Your task to perform on an android device: refresh tabs in the chrome app Image 0: 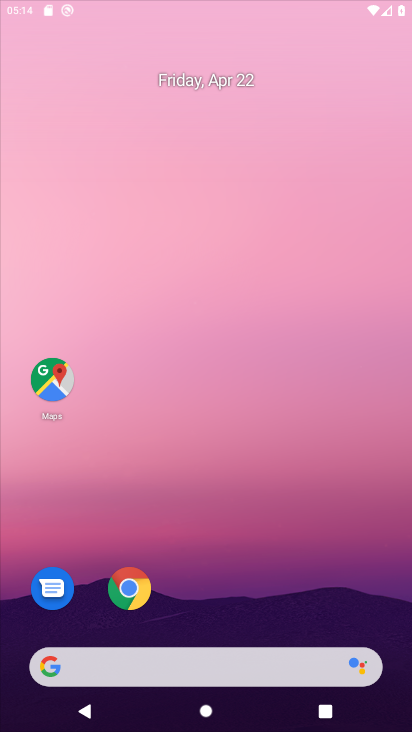
Step 0: drag from (261, 598) to (280, 65)
Your task to perform on an android device: refresh tabs in the chrome app Image 1: 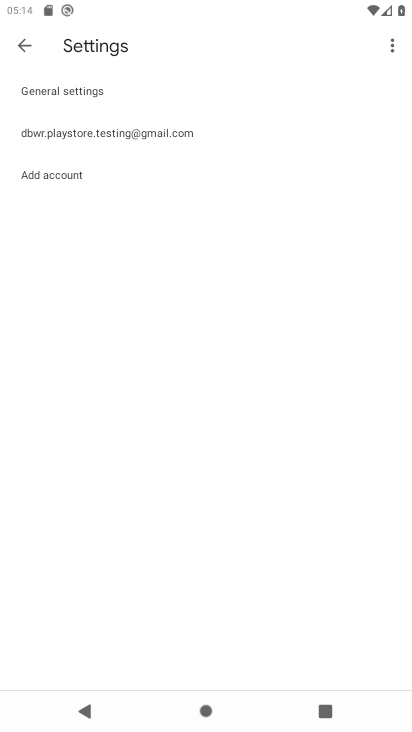
Step 1: press home button
Your task to perform on an android device: refresh tabs in the chrome app Image 2: 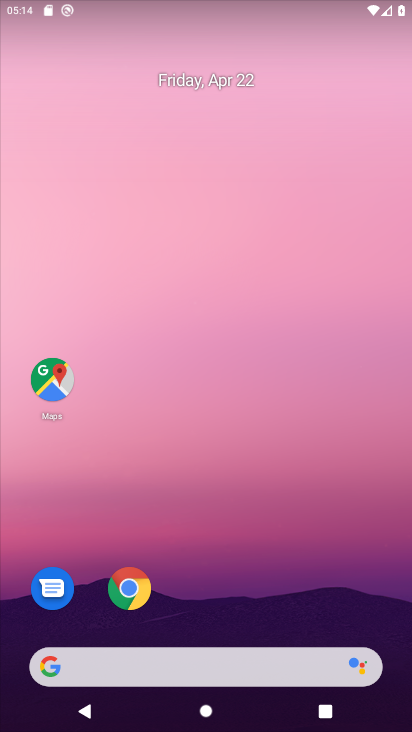
Step 2: click (132, 586)
Your task to perform on an android device: refresh tabs in the chrome app Image 3: 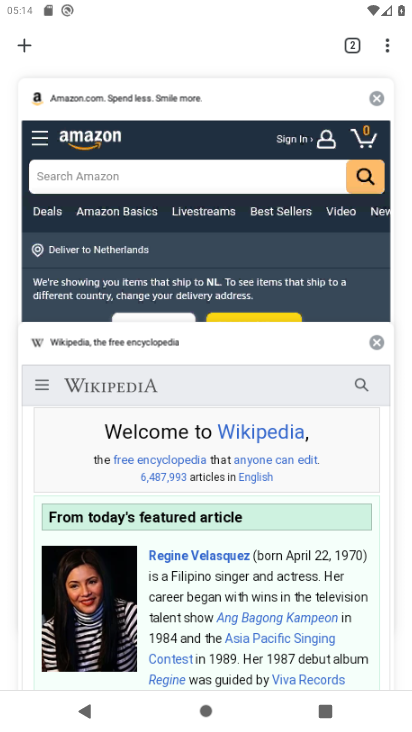
Step 3: click (389, 45)
Your task to perform on an android device: refresh tabs in the chrome app Image 4: 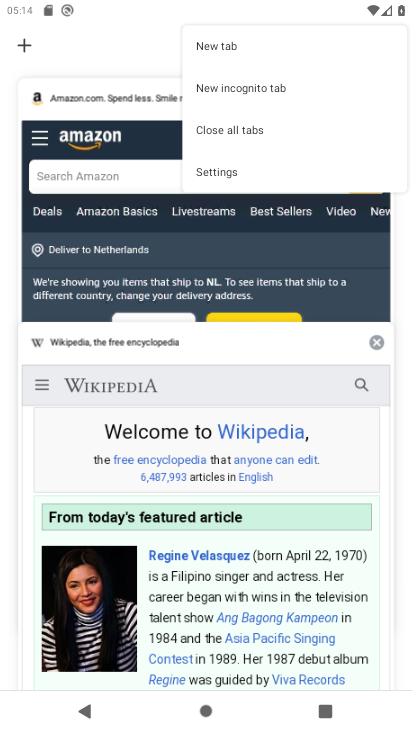
Step 4: click (402, 440)
Your task to perform on an android device: refresh tabs in the chrome app Image 5: 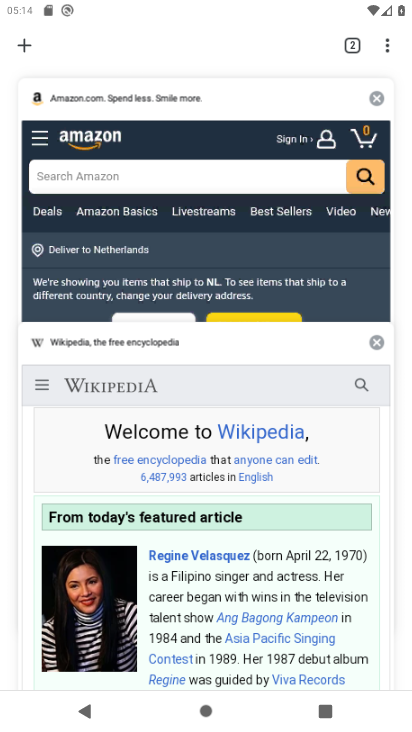
Step 5: click (358, 420)
Your task to perform on an android device: refresh tabs in the chrome app Image 6: 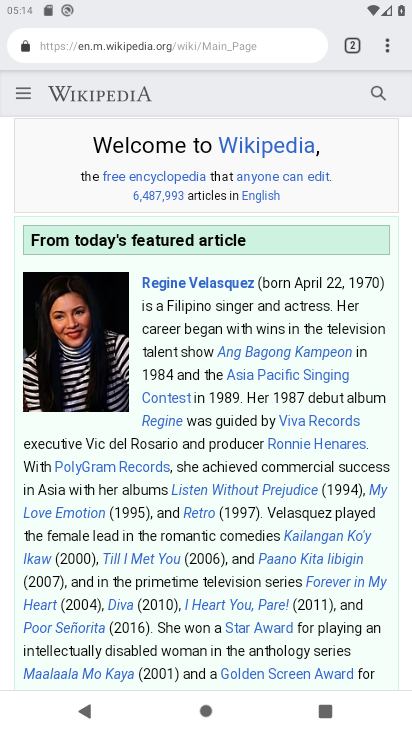
Step 6: click (387, 44)
Your task to perform on an android device: refresh tabs in the chrome app Image 7: 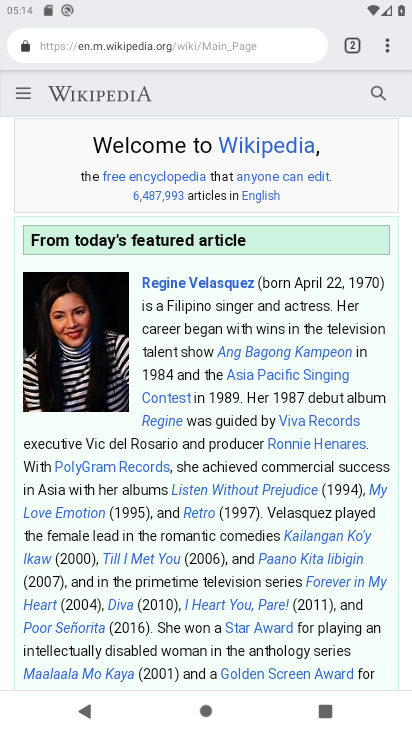
Step 7: task complete